Your task to perform on an android device: check storage Image 0: 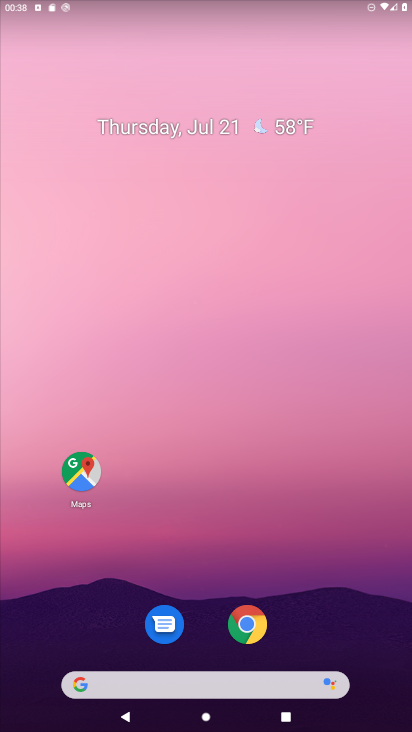
Step 0: drag from (218, 463) to (218, 214)
Your task to perform on an android device: check storage Image 1: 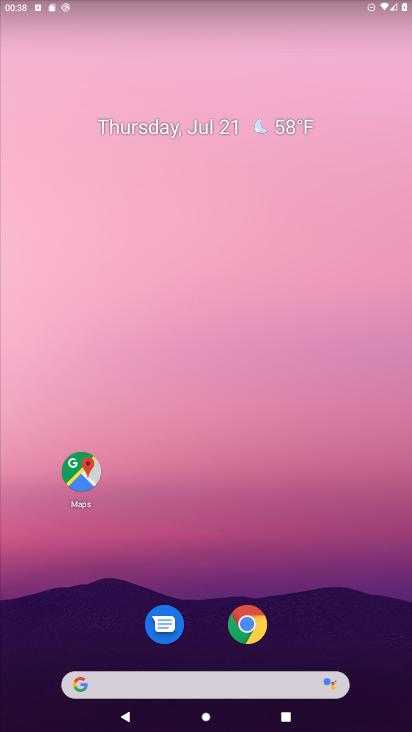
Step 1: drag from (210, 554) to (204, 121)
Your task to perform on an android device: check storage Image 2: 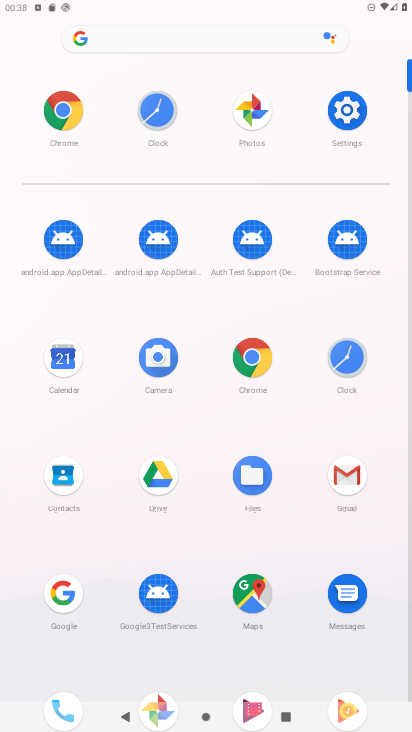
Step 2: click (351, 105)
Your task to perform on an android device: check storage Image 3: 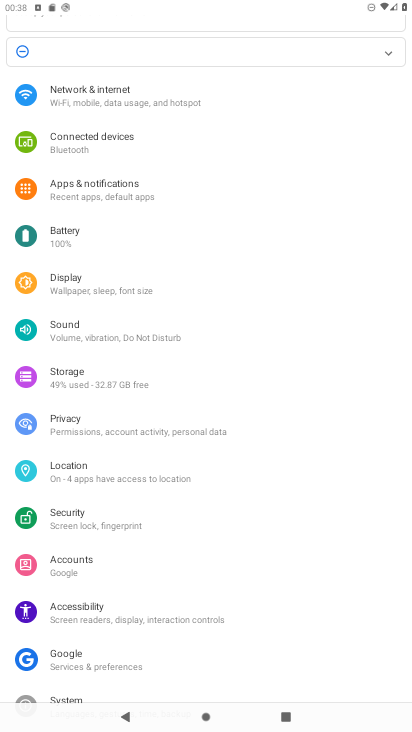
Step 3: click (121, 387)
Your task to perform on an android device: check storage Image 4: 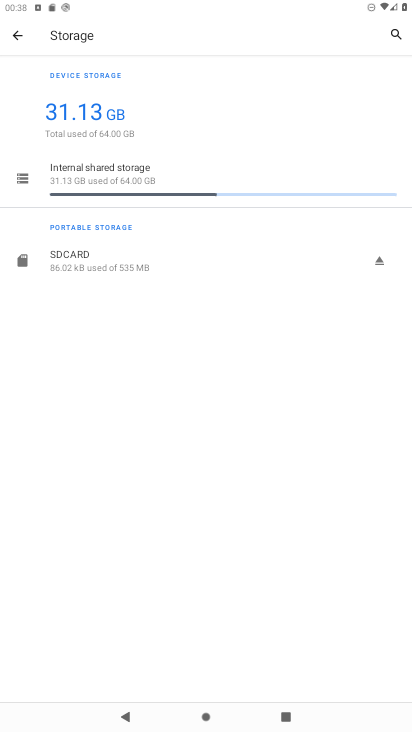
Step 4: click (273, 189)
Your task to perform on an android device: check storage Image 5: 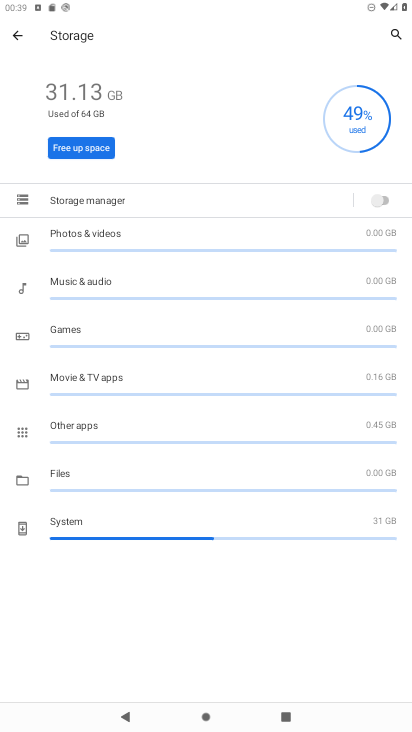
Step 5: task complete